Your task to perform on an android device: turn on the 12-hour format for clock Image 0: 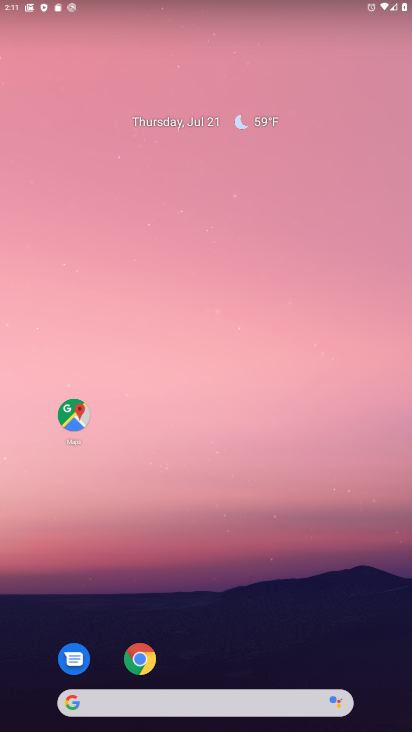
Step 0: drag from (240, 552) to (237, 54)
Your task to perform on an android device: turn on the 12-hour format for clock Image 1: 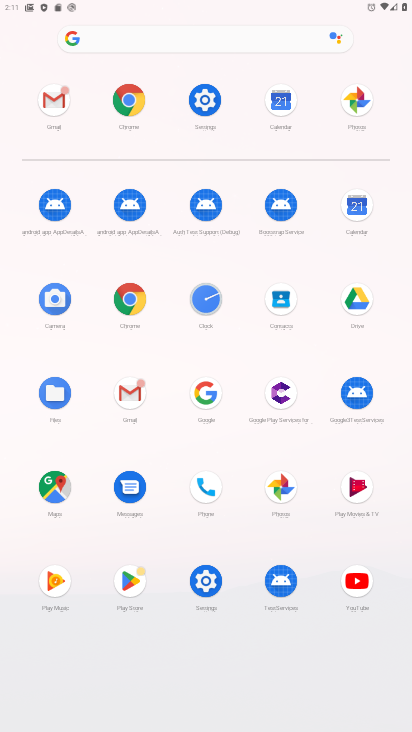
Step 1: click (195, 300)
Your task to perform on an android device: turn on the 12-hour format for clock Image 2: 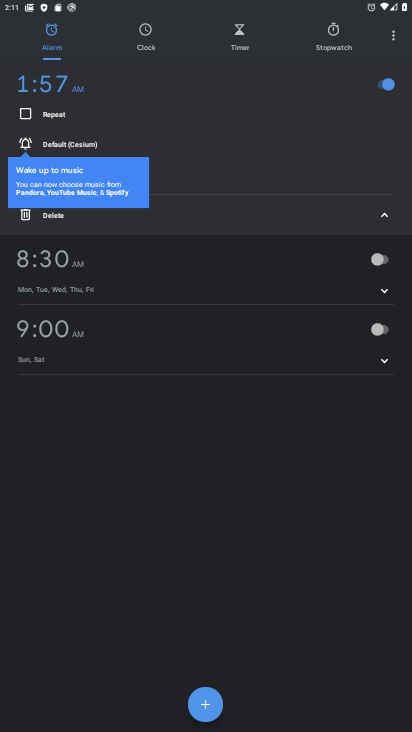
Step 2: click (394, 31)
Your task to perform on an android device: turn on the 12-hour format for clock Image 3: 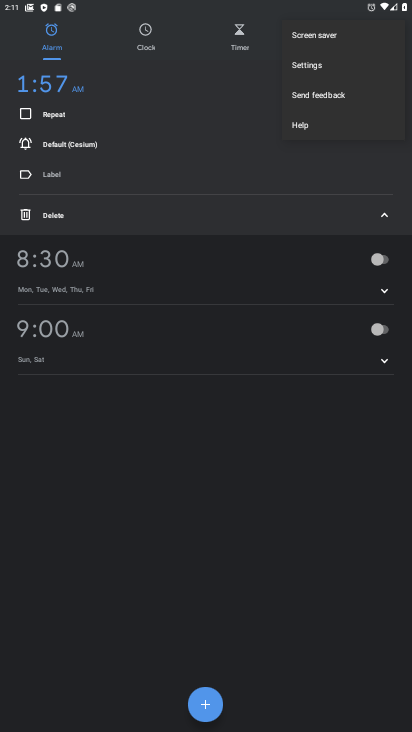
Step 3: click (314, 72)
Your task to perform on an android device: turn on the 12-hour format for clock Image 4: 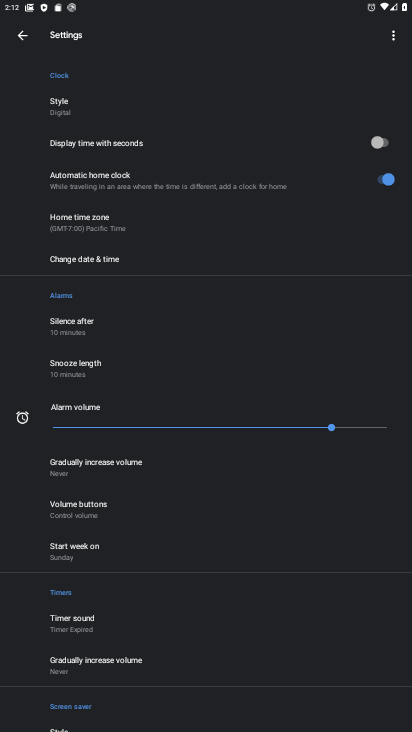
Step 4: click (112, 263)
Your task to perform on an android device: turn on the 12-hour format for clock Image 5: 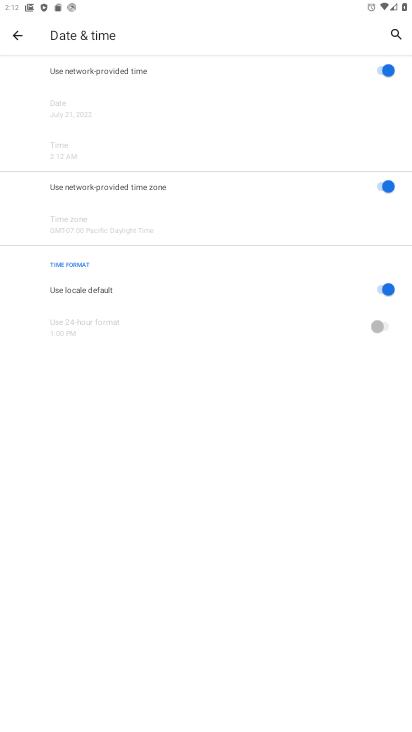
Step 5: click (375, 290)
Your task to perform on an android device: turn on the 12-hour format for clock Image 6: 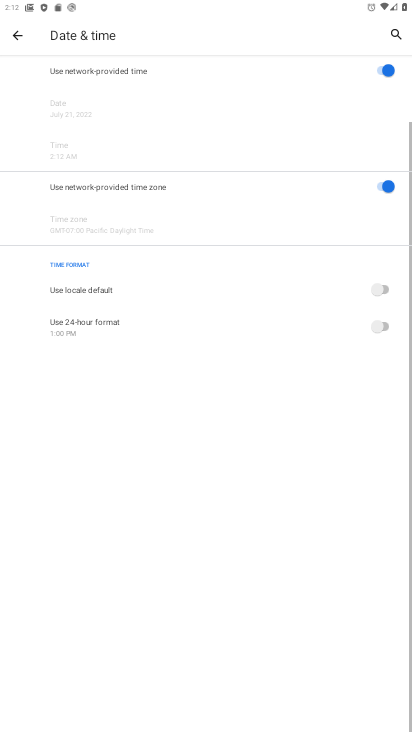
Step 6: click (378, 330)
Your task to perform on an android device: turn on the 12-hour format for clock Image 7: 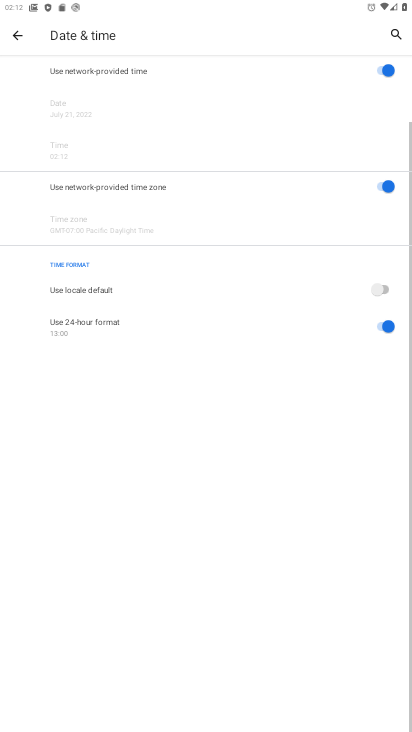
Step 7: task complete